Your task to perform on an android device: find which apps use the phone's location Image 0: 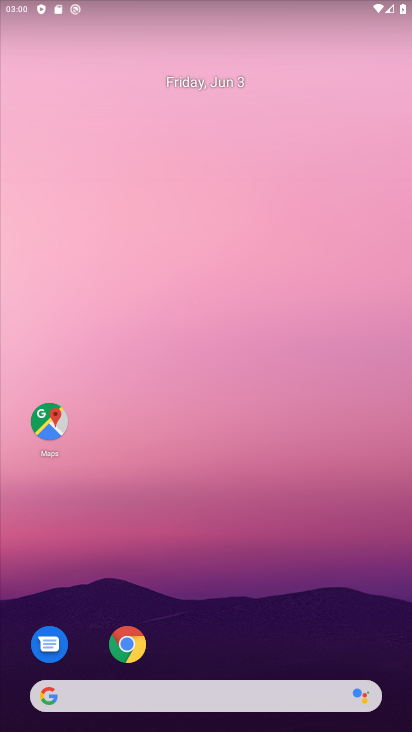
Step 0: drag from (351, 673) to (147, 174)
Your task to perform on an android device: find which apps use the phone's location Image 1: 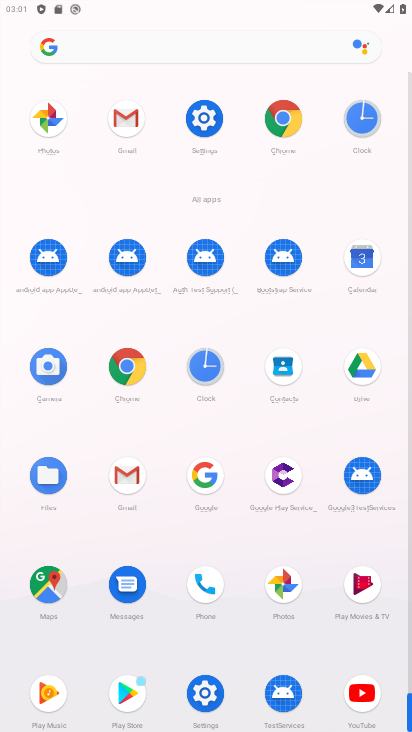
Step 1: click (191, 565)
Your task to perform on an android device: find which apps use the phone's location Image 2: 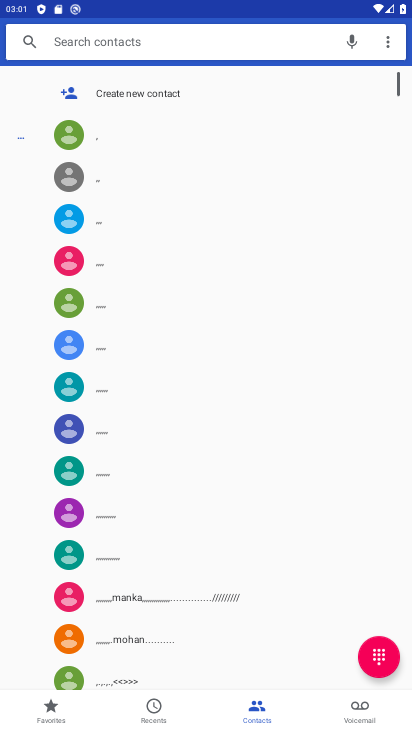
Step 2: press home button
Your task to perform on an android device: find which apps use the phone's location Image 3: 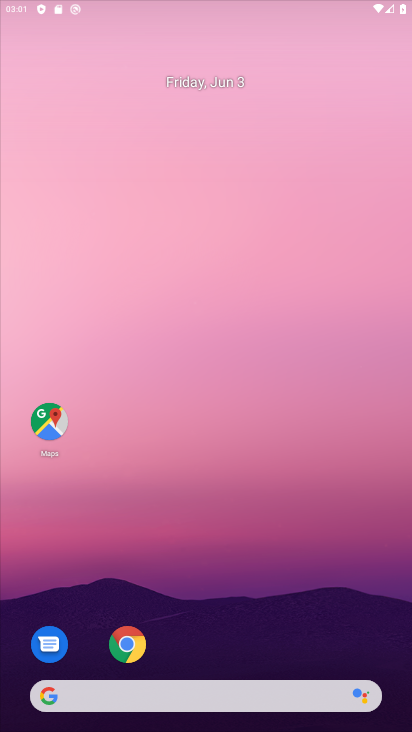
Step 3: drag from (321, 660) to (224, 115)
Your task to perform on an android device: find which apps use the phone's location Image 4: 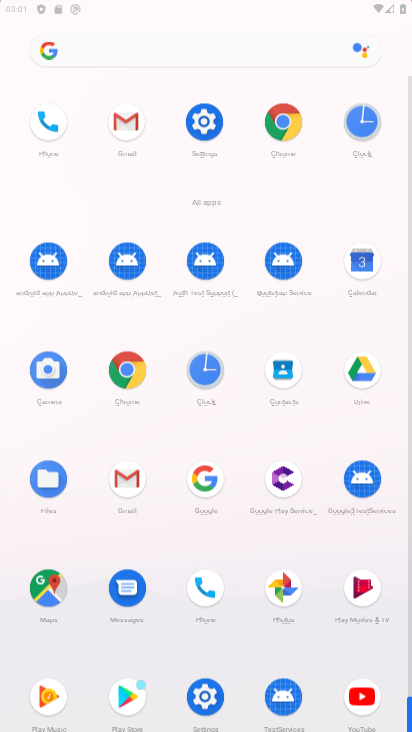
Step 4: click (179, 139)
Your task to perform on an android device: find which apps use the phone's location Image 5: 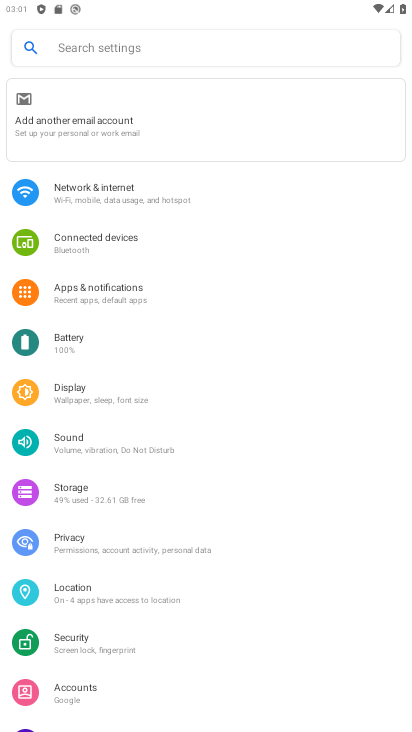
Step 5: press back button
Your task to perform on an android device: find which apps use the phone's location Image 6: 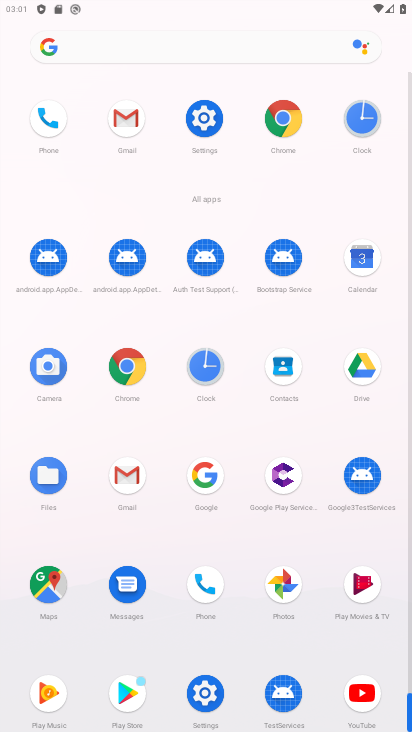
Step 6: click (209, 602)
Your task to perform on an android device: find which apps use the phone's location Image 7: 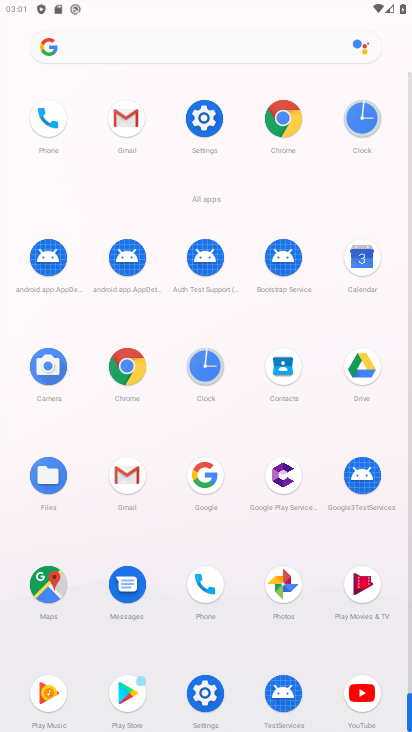
Step 7: click (255, 542)
Your task to perform on an android device: find which apps use the phone's location Image 8: 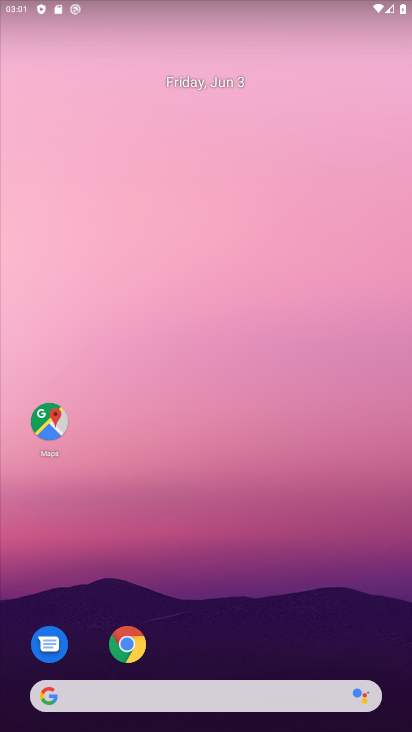
Step 8: drag from (232, 671) to (325, 52)
Your task to perform on an android device: find which apps use the phone's location Image 9: 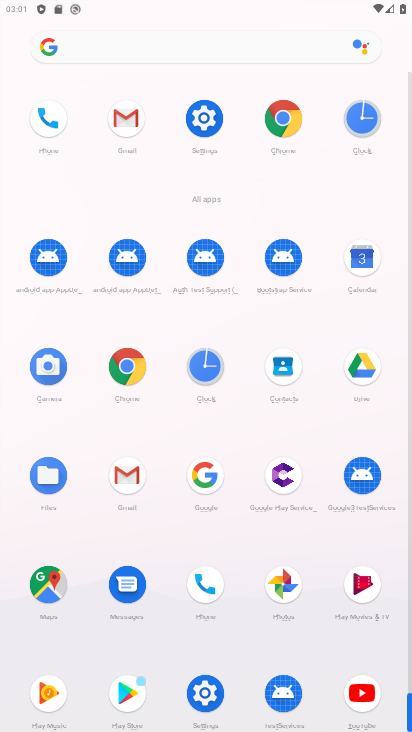
Step 9: click (196, 576)
Your task to perform on an android device: find which apps use the phone's location Image 10: 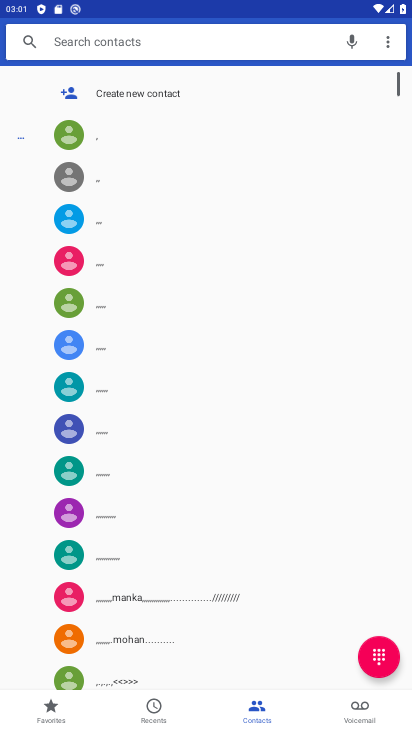
Step 10: press home button
Your task to perform on an android device: find which apps use the phone's location Image 11: 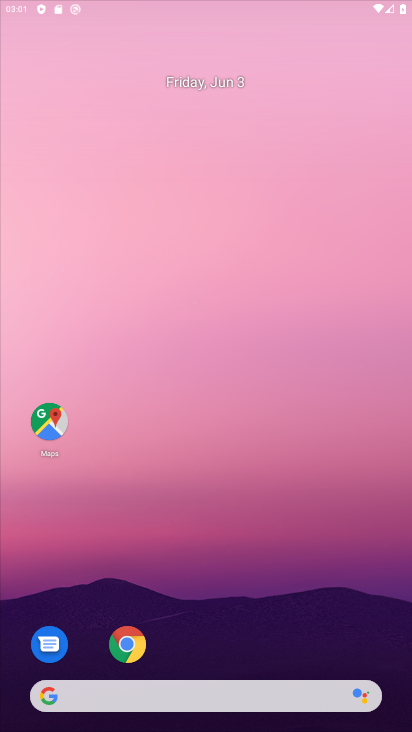
Step 11: drag from (356, 642) to (268, 15)
Your task to perform on an android device: find which apps use the phone's location Image 12: 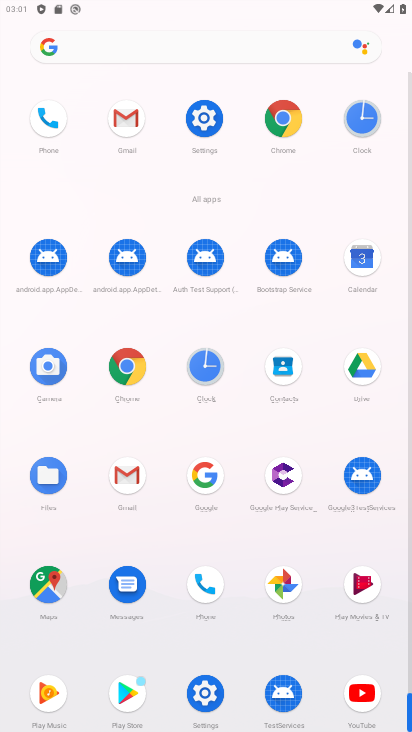
Step 12: click (218, 579)
Your task to perform on an android device: find which apps use the phone's location Image 13: 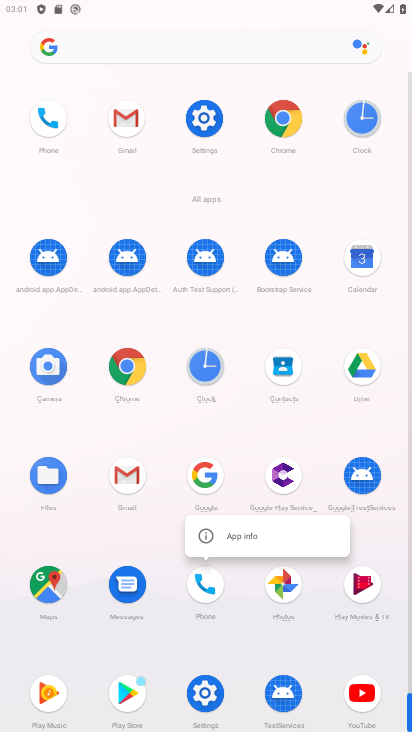
Step 13: click (247, 545)
Your task to perform on an android device: find which apps use the phone's location Image 14: 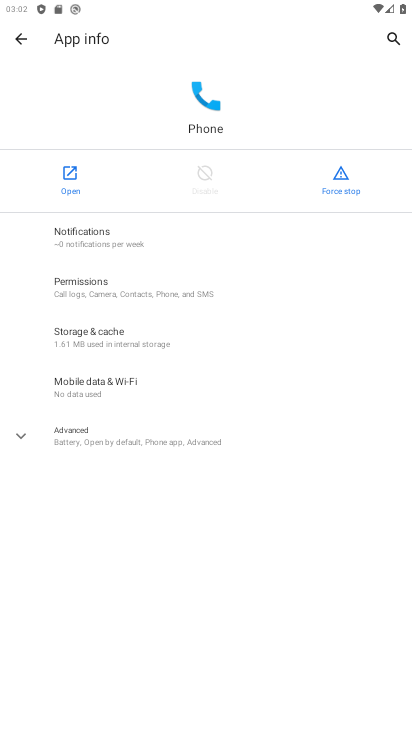
Step 14: click (70, 301)
Your task to perform on an android device: find which apps use the phone's location Image 15: 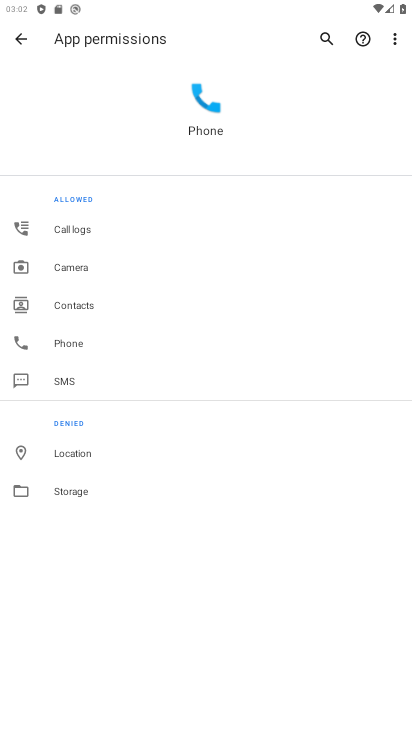
Step 15: click (53, 461)
Your task to perform on an android device: find which apps use the phone's location Image 16: 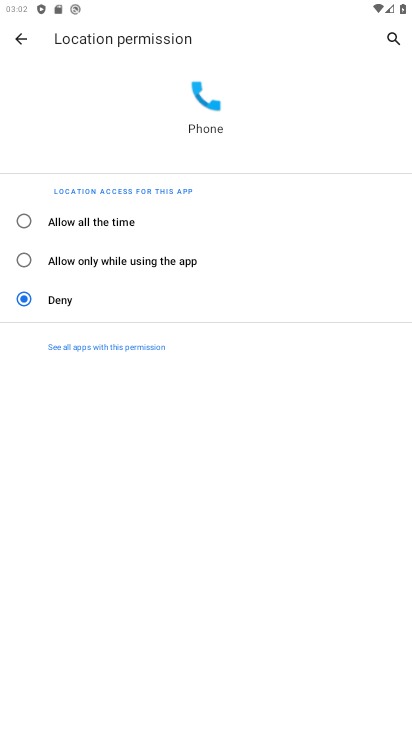
Step 16: click (71, 344)
Your task to perform on an android device: find which apps use the phone's location Image 17: 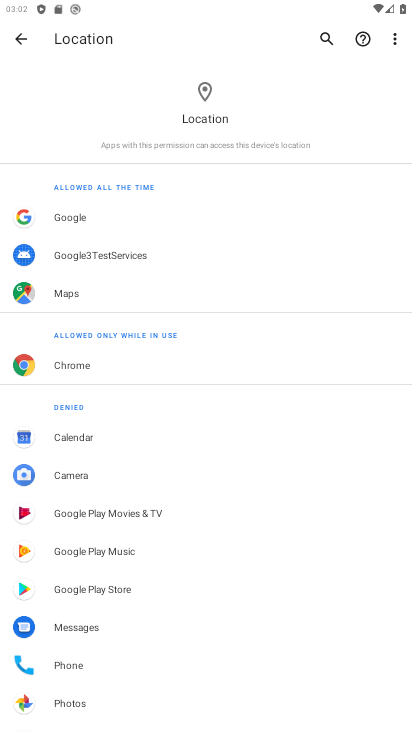
Step 17: task complete